Your task to perform on an android device: turn off javascript in the chrome app Image 0: 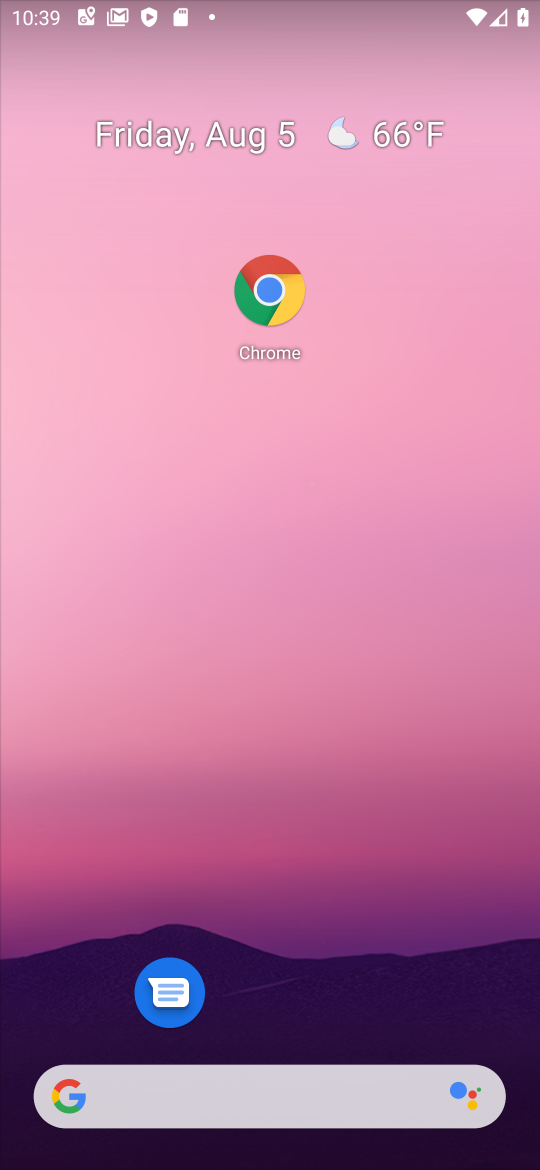
Step 0: drag from (206, 1047) to (295, 22)
Your task to perform on an android device: turn off javascript in the chrome app Image 1: 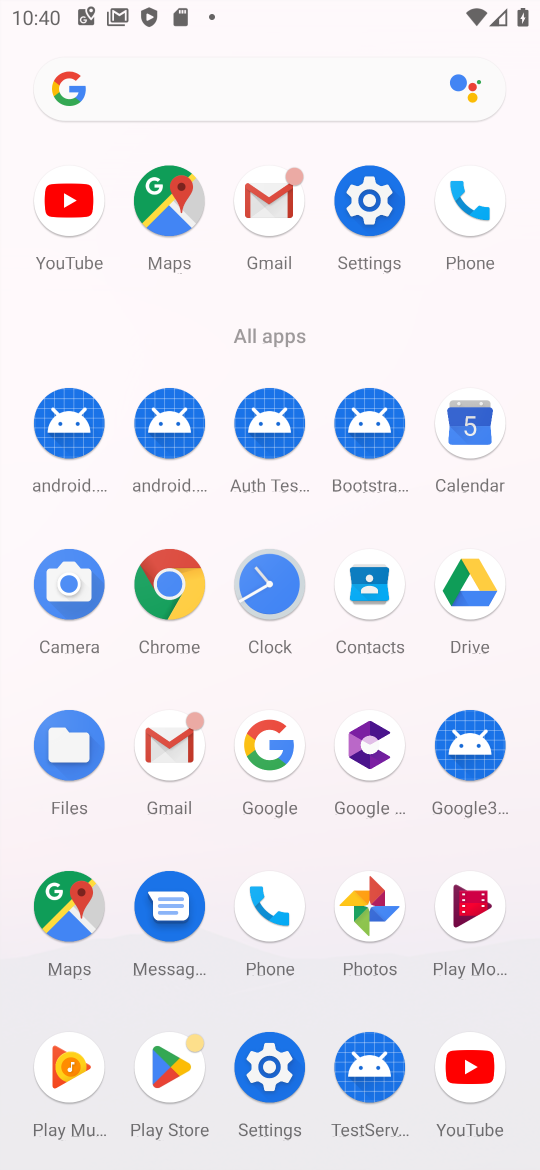
Step 1: click (161, 607)
Your task to perform on an android device: turn off javascript in the chrome app Image 2: 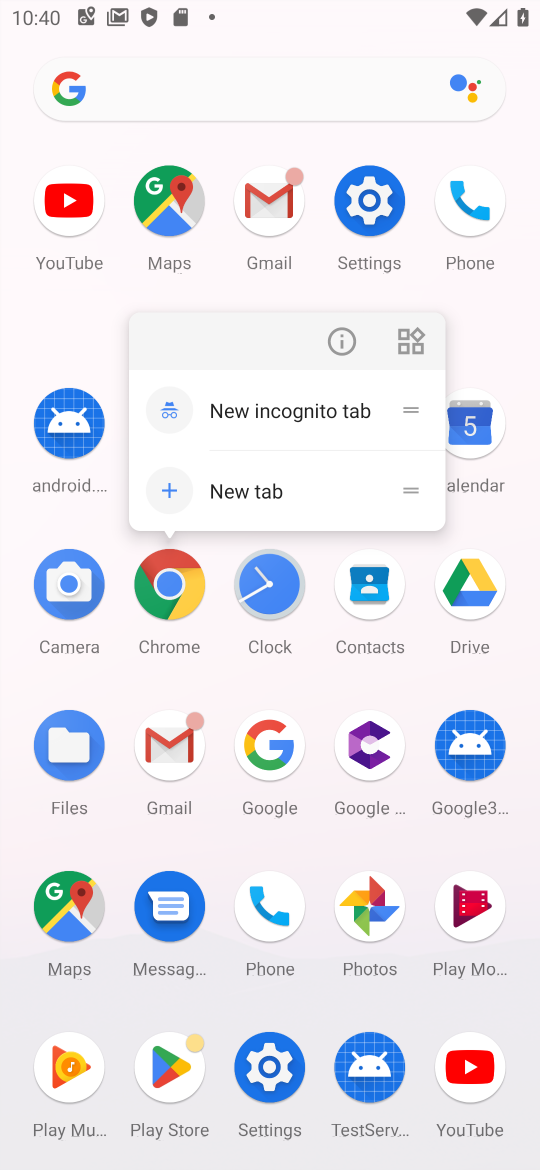
Step 2: click (164, 606)
Your task to perform on an android device: turn off javascript in the chrome app Image 3: 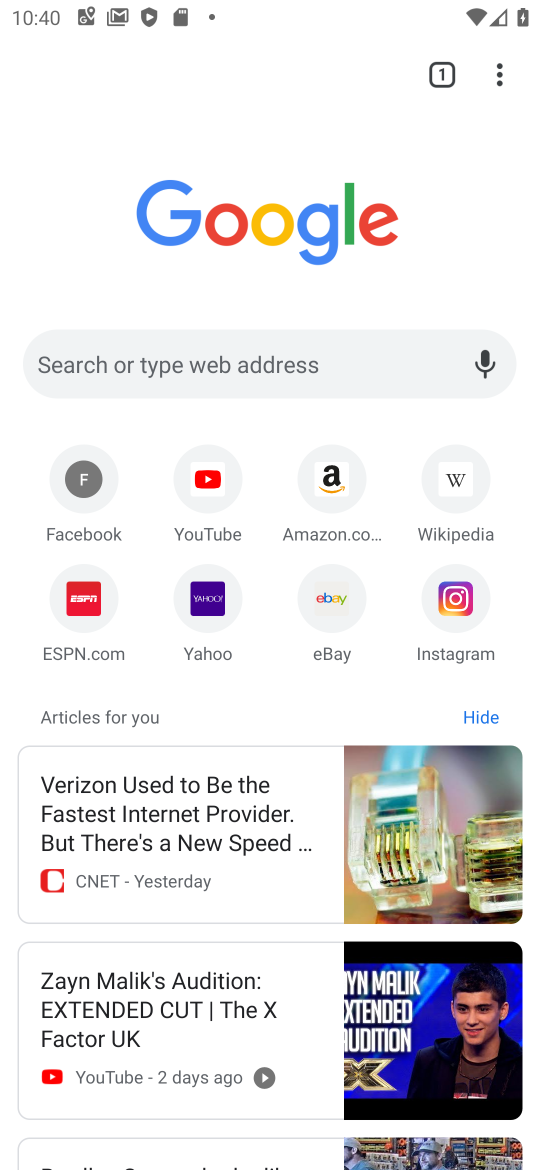
Step 3: drag from (499, 82) to (273, 644)
Your task to perform on an android device: turn off javascript in the chrome app Image 4: 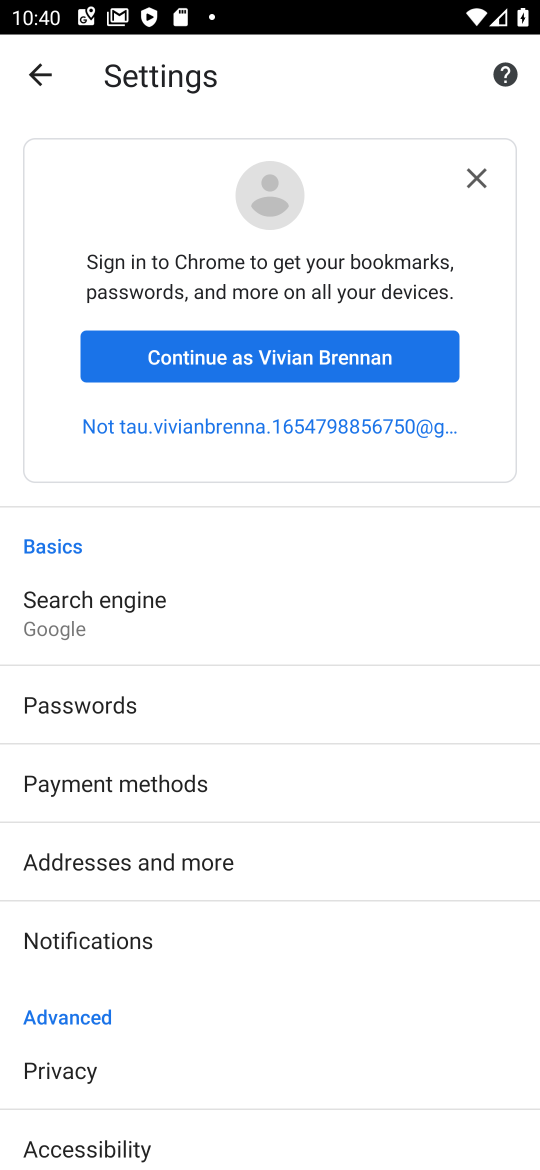
Step 4: drag from (241, 864) to (201, 171)
Your task to perform on an android device: turn off javascript in the chrome app Image 5: 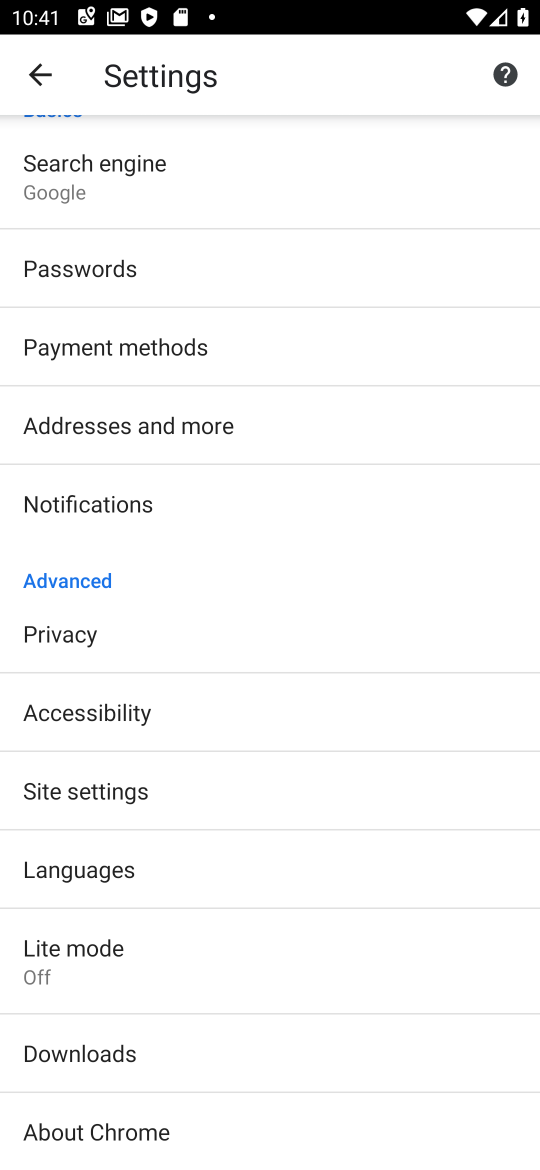
Step 5: click (104, 780)
Your task to perform on an android device: turn off javascript in the chrome app Image 6: 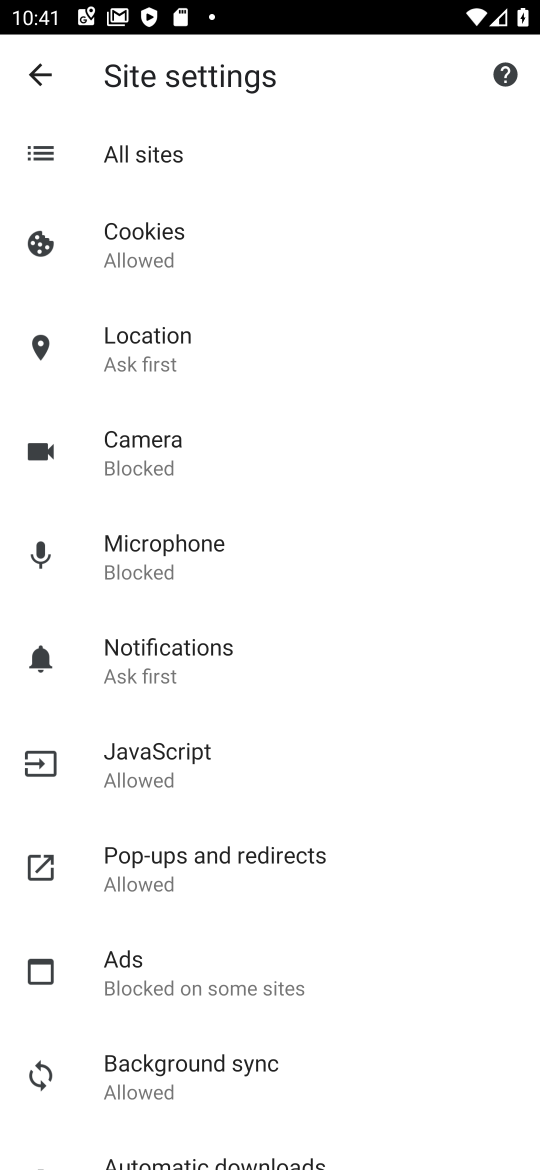
Step 6: click (138, 795)
Your task to perform on an android device: turn off javascript in the chrome app Image 7: 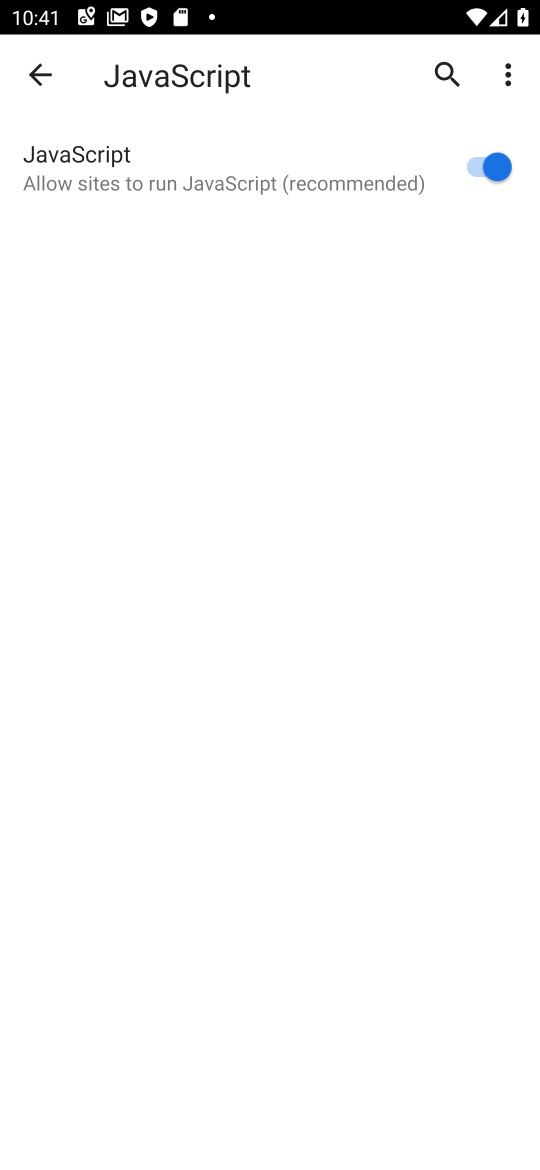
Step 7: click (504, 180)
Your task to perform on an android device: turn off javascript in the chrome app Image 8: 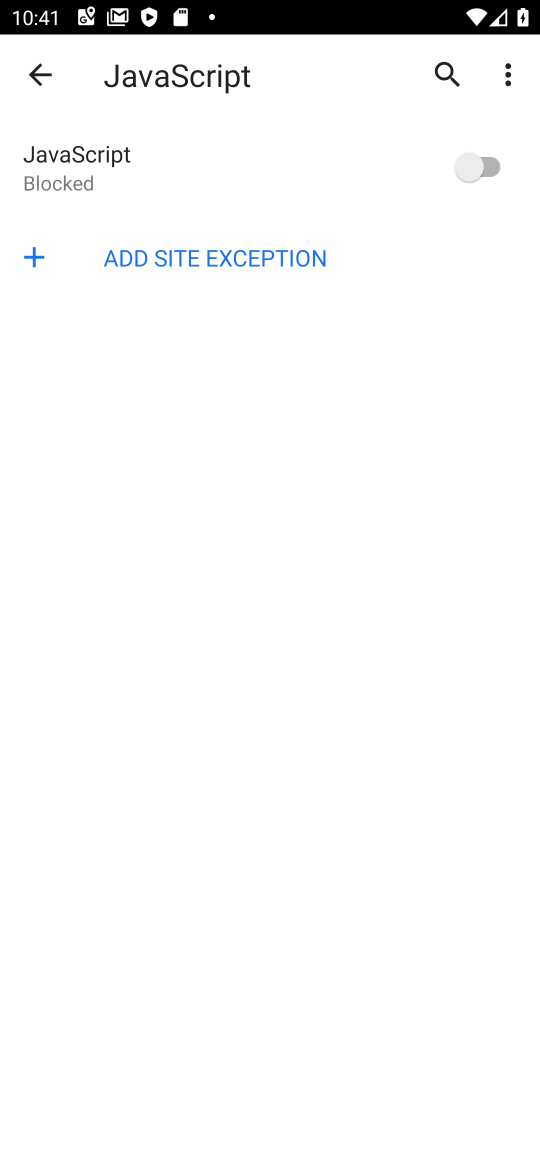
Step 8: task complete